Your task to perform on an android device: change timer sound Image 0: 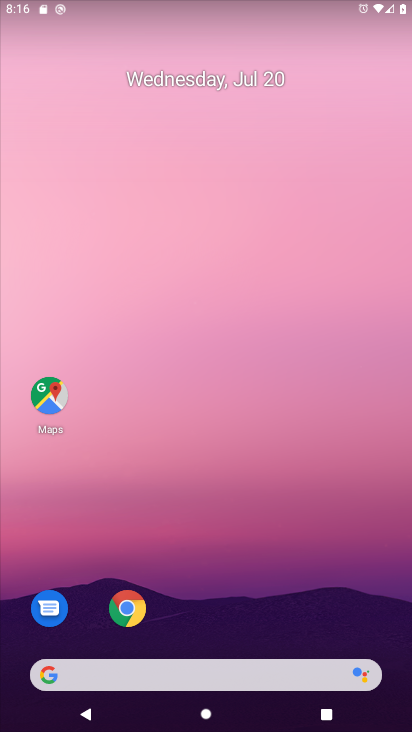
Step 0: drag from (145, 615) to (216, 191)
Your task to perform on an android device: change timer sound Image 1: 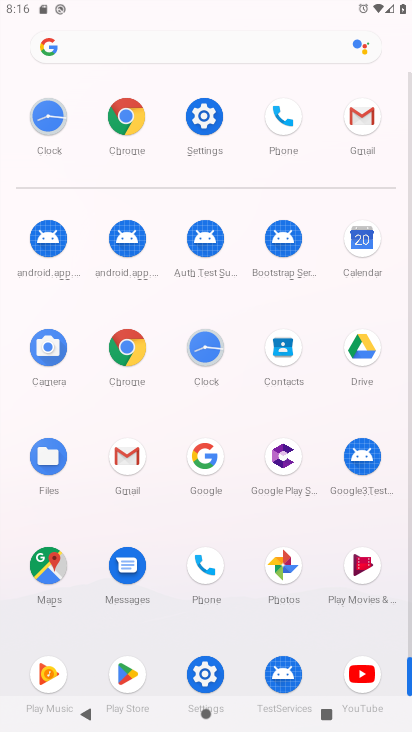
Step 1: click (196, 342)
Your task to perform on an android device: change timer sound Image 2: 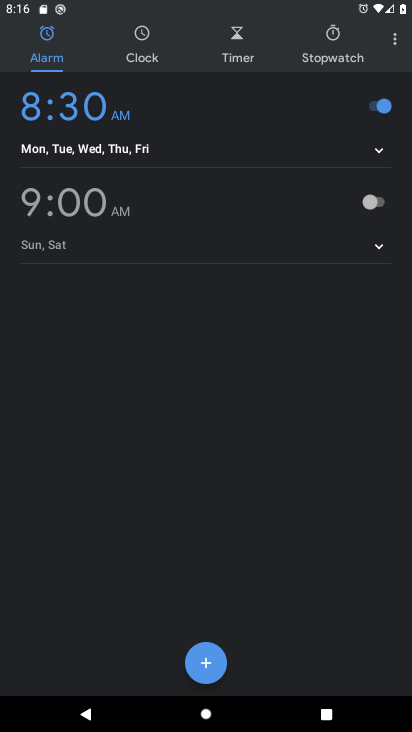
Step 2: click (392, 35)
Your task to perform on an android device: change timer sound Image 3: 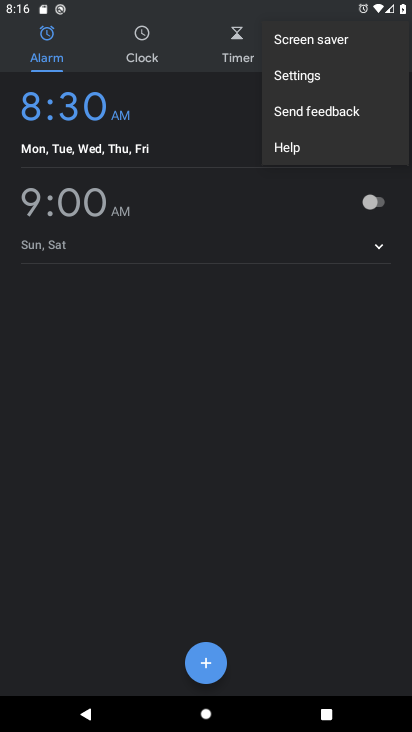
Step 3: click (325, 76)
Your task to perform on an android device: change timer sound Image 4: 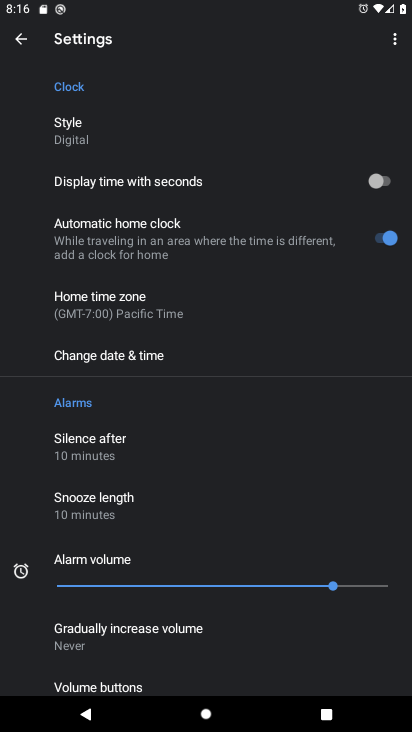
Step 4: drag from (127, 645) to (171, 379)
Your task to perform on an android device: change timer sound Image 5: 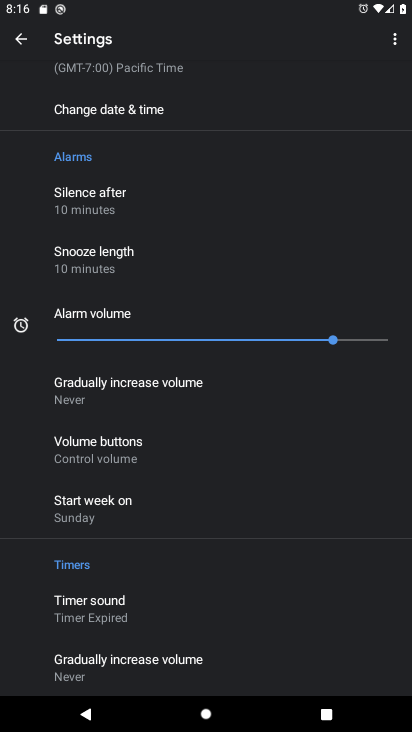
Step 5: click (101, 610)
Your task to perform on an android device: change timer sound Image 6: 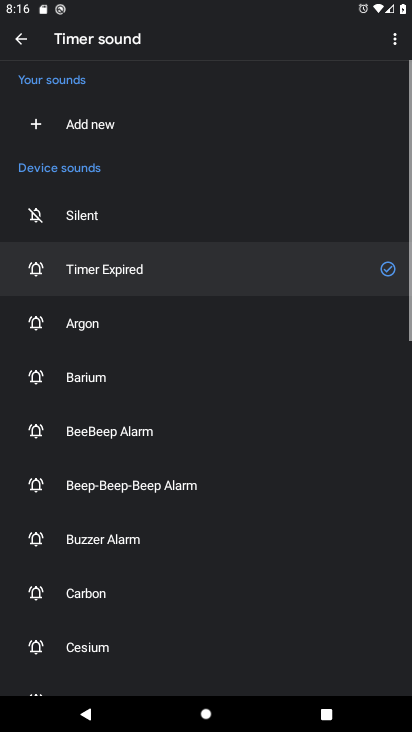
Step 6: drag from (148, 537) to (211, 269)
Your task to perform on an android device: change timer sound Image 7: 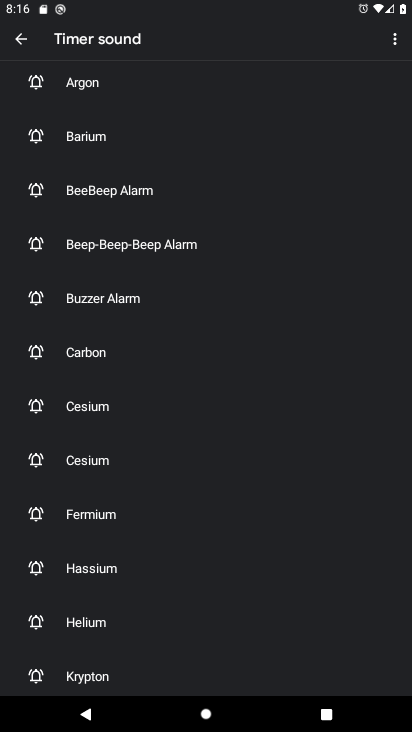
Step 7: click (99, 438)
Your task to perform on an android device: change timer sound Image 8: 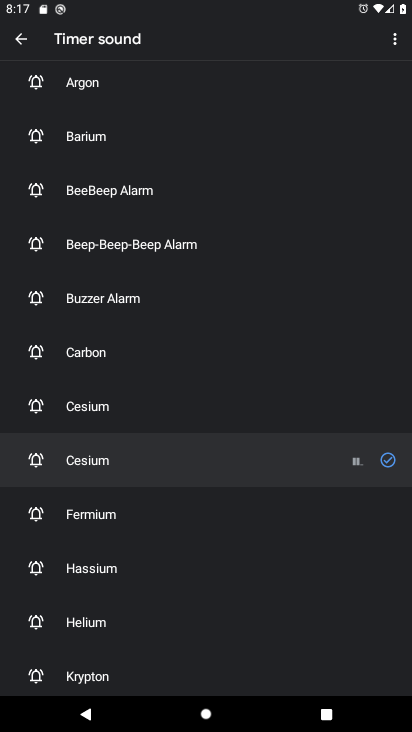
Step 8: task complete